Your task to perform on an android device: allow notifications from all sites in the chrome app Image 0: 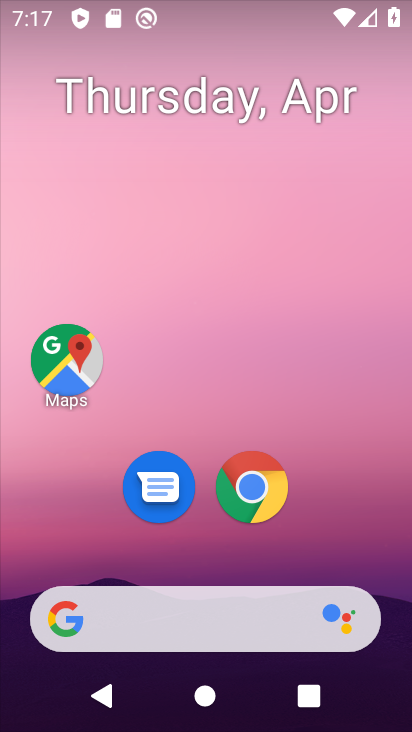
Step 0: click (243, 490)
Your task to perform on an android device: allow notifications from all sites in the chrome app Image 1: 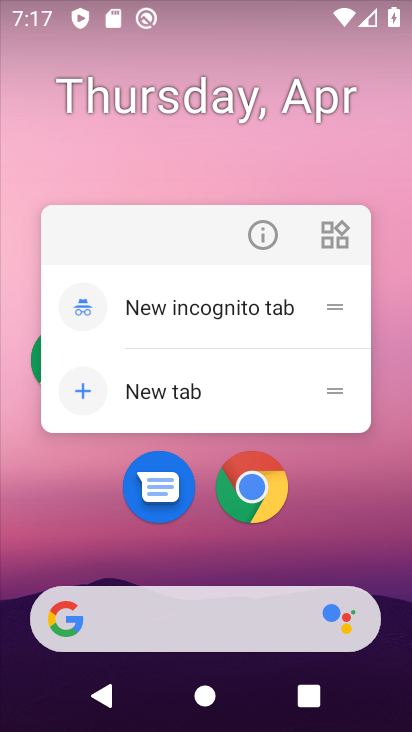
Step 1: click (243, 490)
Your task to perform on an android device: allow notifications from all sites in the chrome app Image 2: 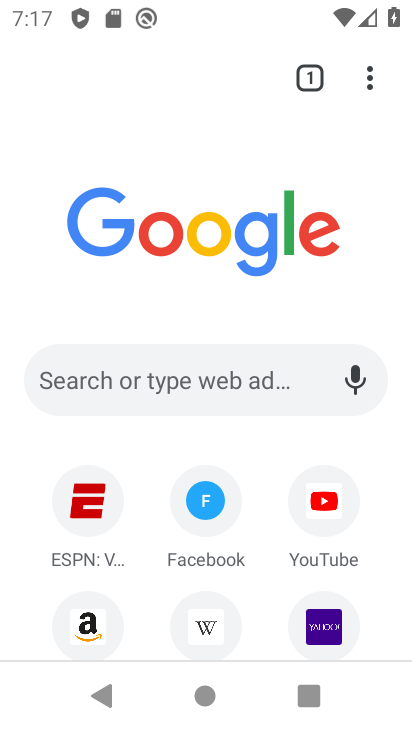
Step 2: click (370, 73)
Your task to perform on an android device: allow notifications from all sites in the chrome app Image 3: 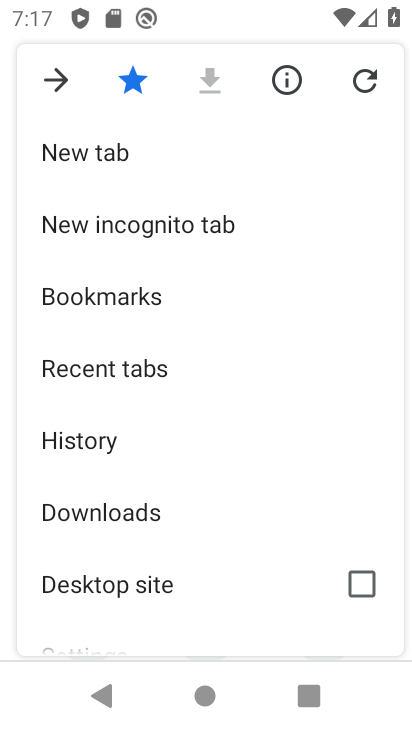
Step 3: drag from (151, 560) to (138, 322)
Your task to perform on an android device: allow notifications from all sites in the chrome app Image 4: 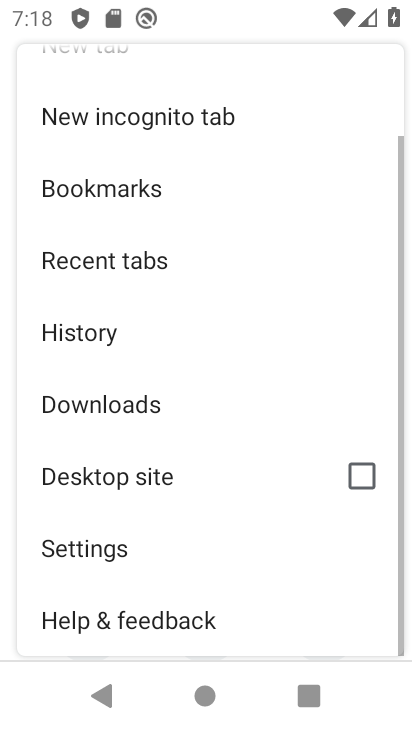
Step 4: click (124, 560)
Your task to perform on an android device: allow notifications from all sites in the chrome app Image 5: 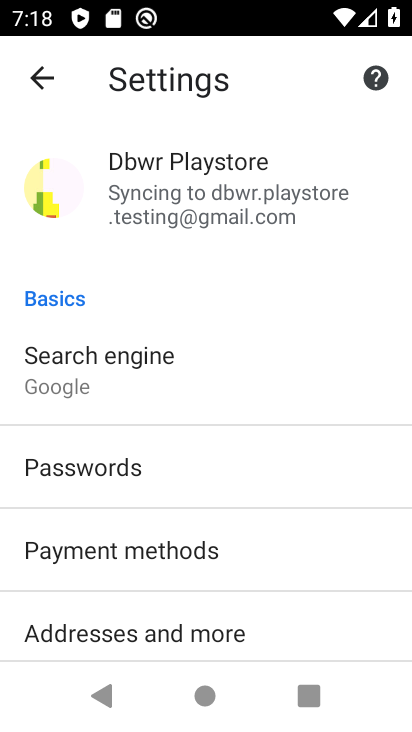
Step 5: drag from (165, 530) to (164, 314)
Your task to perform on an android device: allow notifications from all sites in the chrome app Image 6: 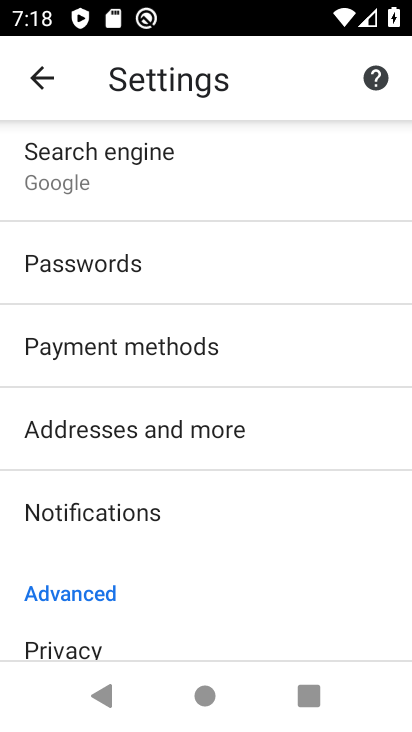
Step 6: click (157, 492)
Your task to perform on an android device: allow notifications from all sites in the chrome app Image 7: 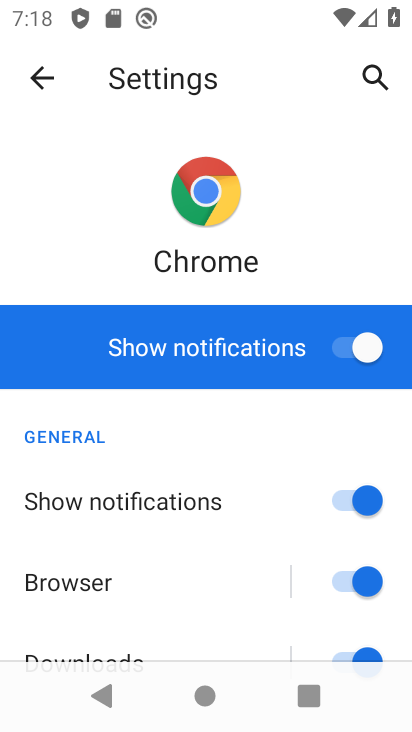
Step 7: task complete